Your task to perform on an android device: check android version Image 0: 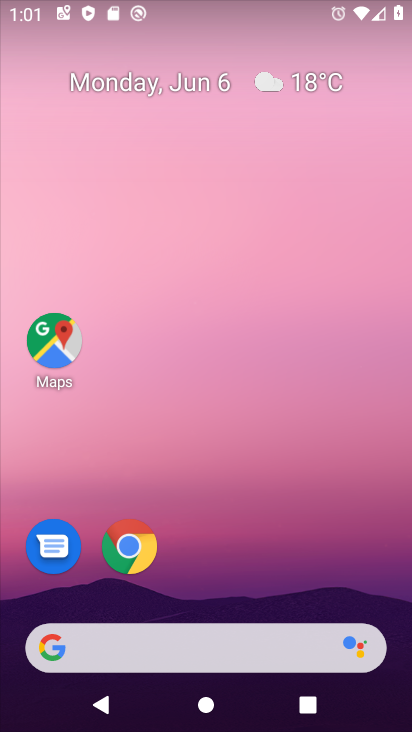
Step 0: drag from (317, 557) to (325, 33)
Your task to perform on an android device: check android version Image 1: 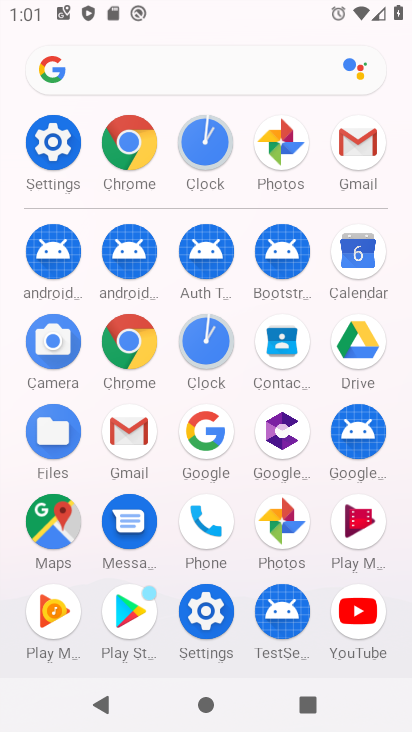
Step 1: click (47, 153)
Your task to perform on an android device: check android version Image 2: 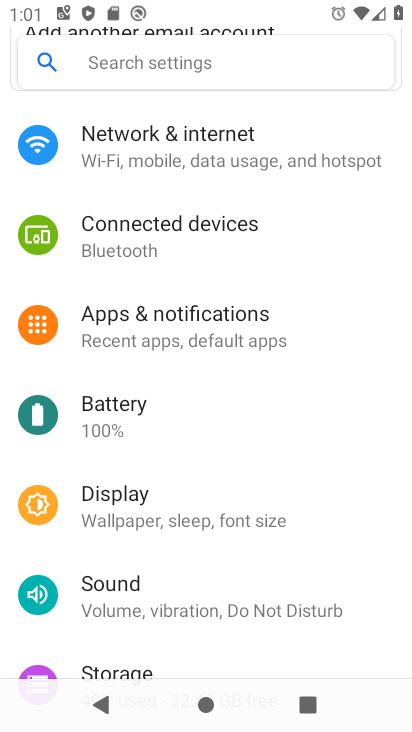
Step 2: drag from (264, 641) to (283, 20)
Your task to perform on an android device: check android version Image 3: 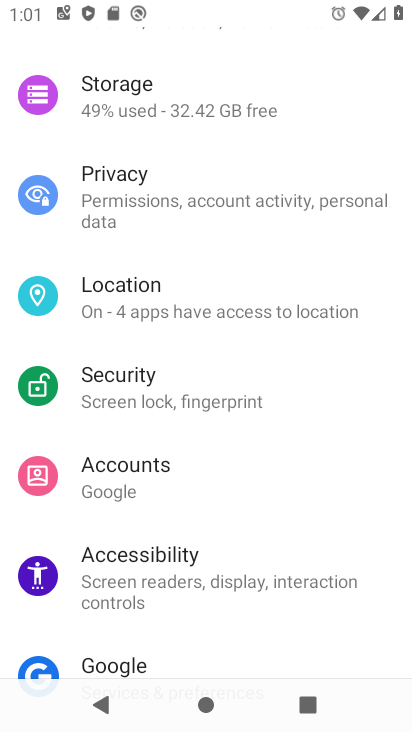
Step 3: drag from (171, 633) to (218, 81)
Your task to perform on an android device: check android version Image 4: 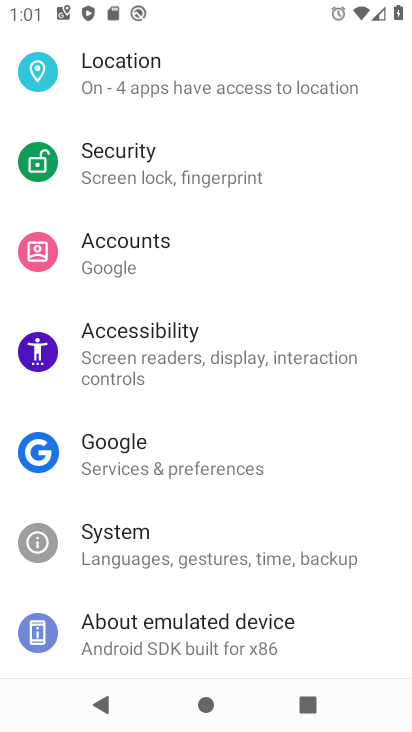
Step 4: click (216, 644)
Your task to perform on an android device: check android version Image 5: 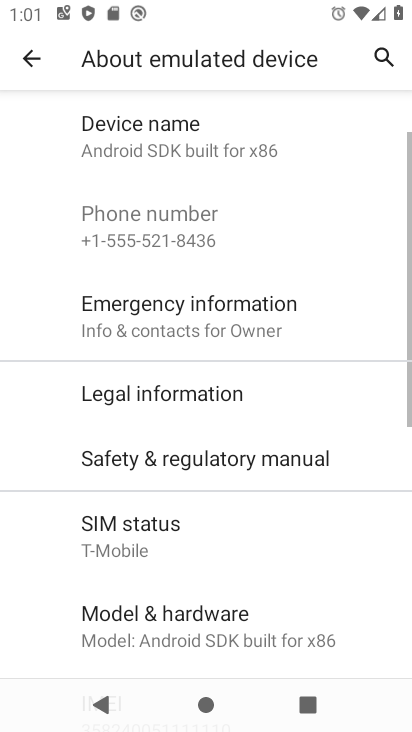
Step 5: task complete